Your task to perform on an android device: clear all cookies in the chrome app Image 0: 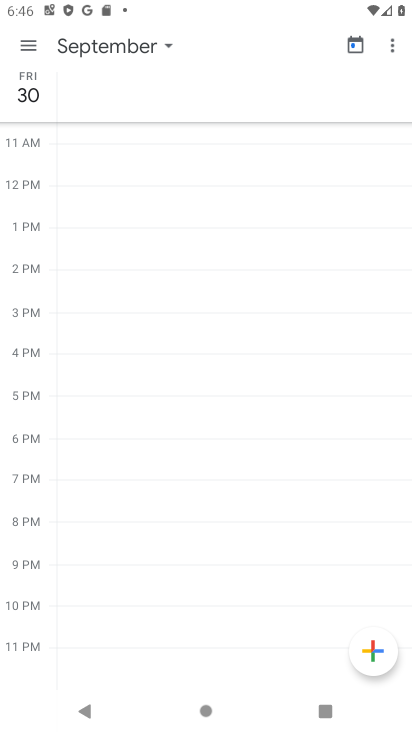
Step 0: press home button
Your task to perform on an android device: clear all cookies in the chrome app Image 1: 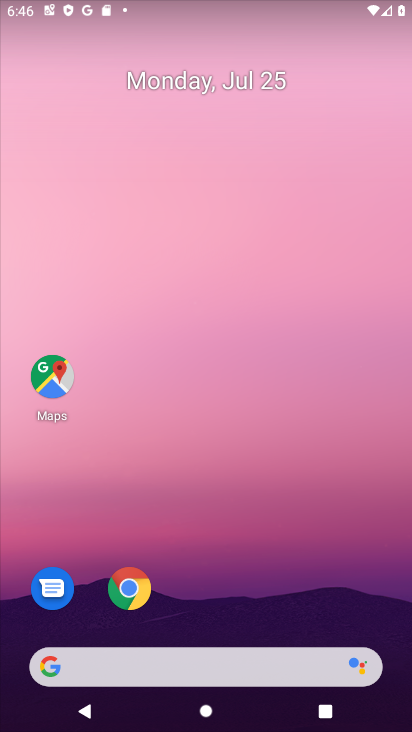
Step 1: click (295, 513)
Your task to perform on an android device: clear all cookies in the chrome app Image 2: 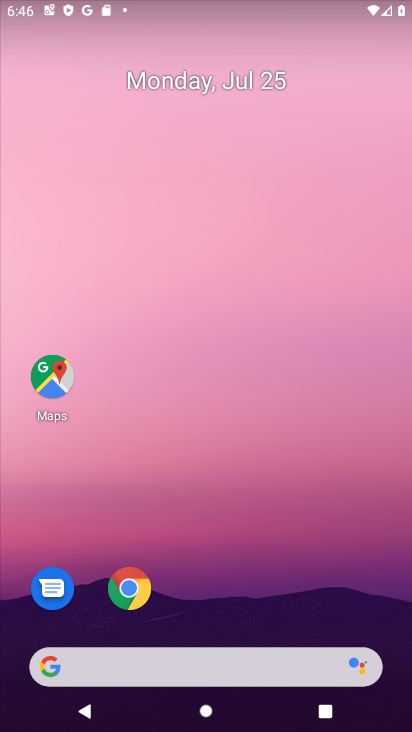
Step 2: click (124, 580)
Your task to perform on an android device: clear all cookies in the chrome app Image 3: 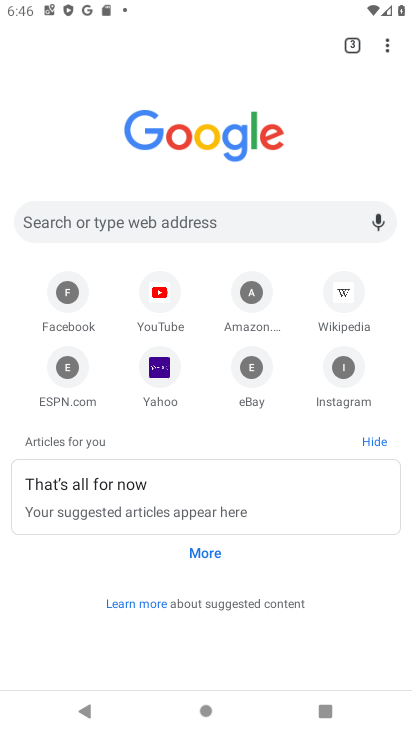
Step 3: click (393, 46)
Your task to perform on an android device: clear all cookies in the chrome app Image 4: 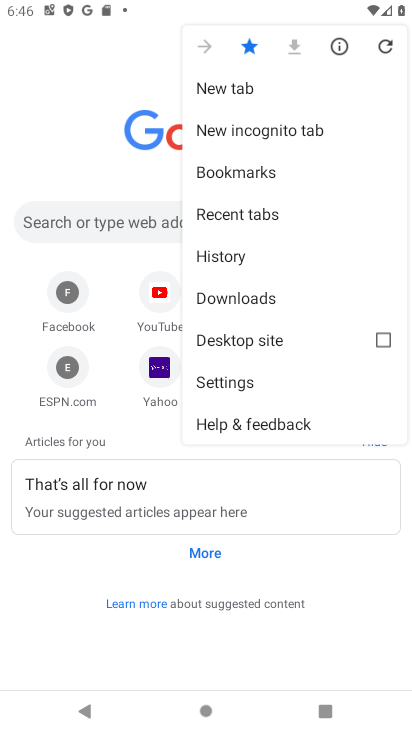
Step 4: click (246, 256)
Your task to perform on an android device: clear all cookies in the chrome app Image 5: 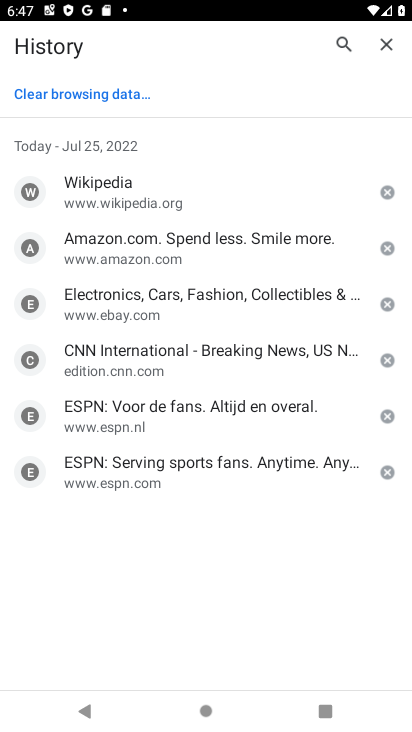
Step 5: click (119, 94)
Your task to perform on an android device: clear all cookies in the chrome app Image 6: 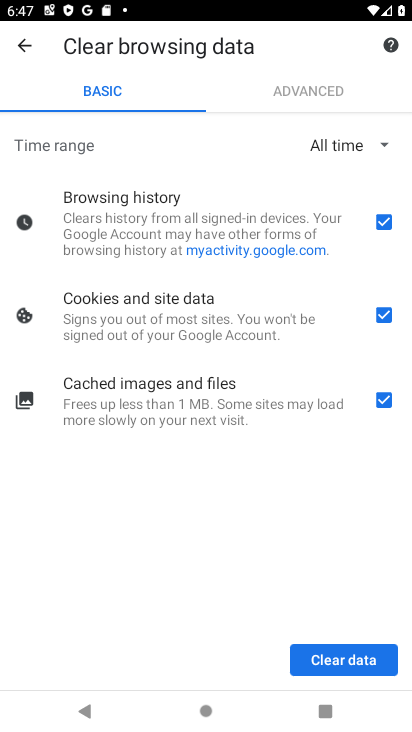
Step 6: click (382, 218)
Your task to perform on an android device: clear all cookies in the chrome app Image 7: 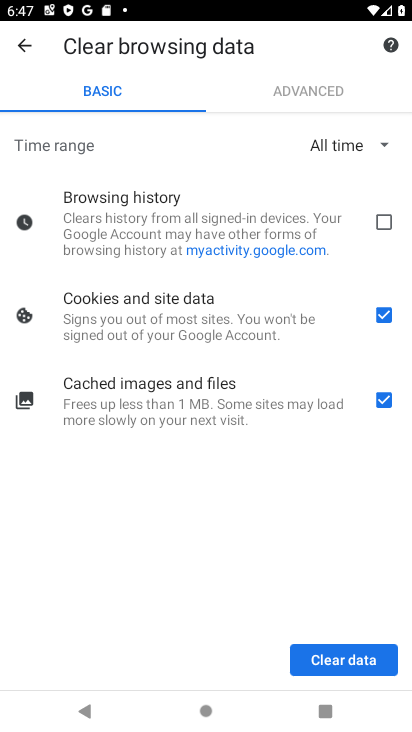
Step 7: click (384, 399)
Your task to perform on an android device: clear all cookies in the chrome app Image 8: 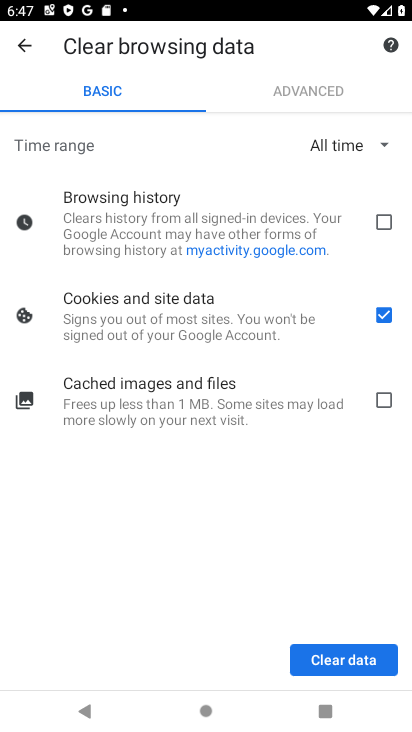
Step 8: click (350, 655)
Your task to perform on an android device: clear all cookies in the chrome app Image 9: 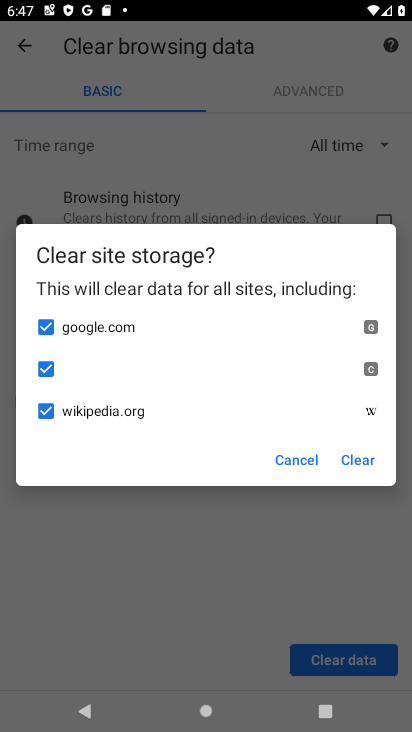
Step 9: click (363, 459)
Your task to perform on an android device: clear all cookies in the chrome app Image 10: 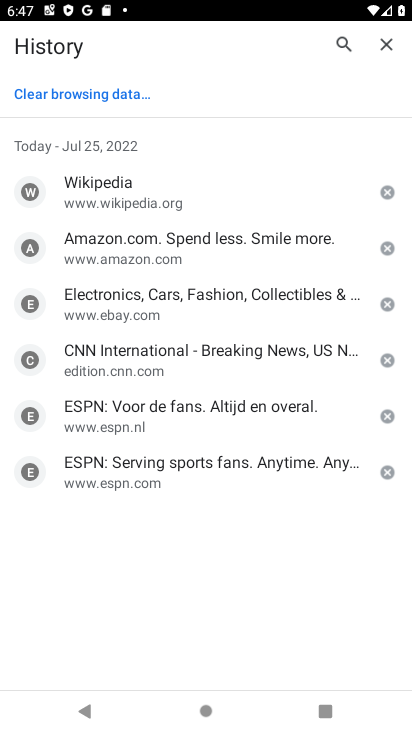
Step 10: task complete